Your task to perform on an android device: When is my next meeting? Image 0: 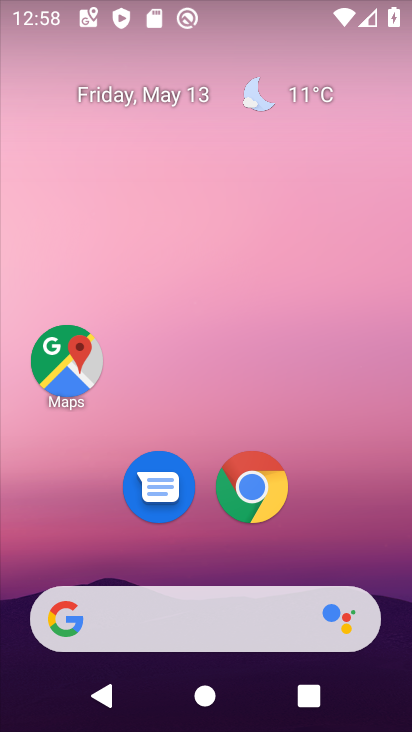
Step 0: drag from (329, 510) to (368, 106)
Your task to perform on an android device: When is my next meeting? Image 1: 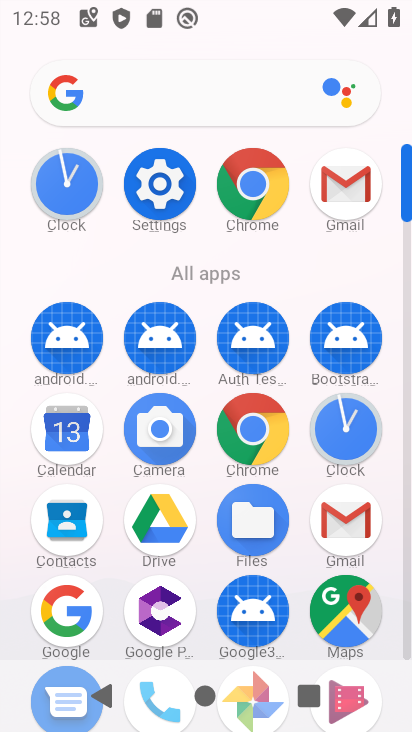
Step 1: click (105, 429)
Your task to perform on an android device: When is my next meeting? Image 2: 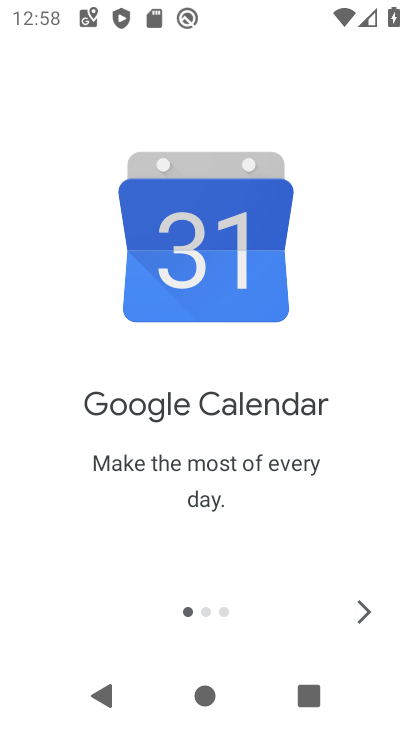
Step 2: click (365, 620)
Your task to perform on an android device: When is my next meeting? Image 3: 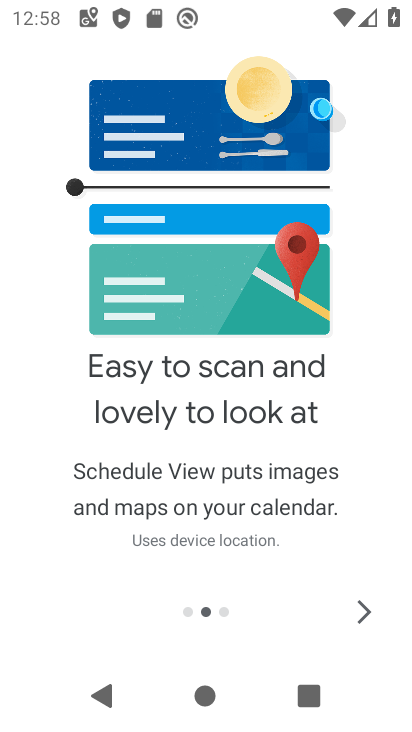
Step 3: click (365, 620)
Your task to perform on an android device: When is my next meeting? Image 4: 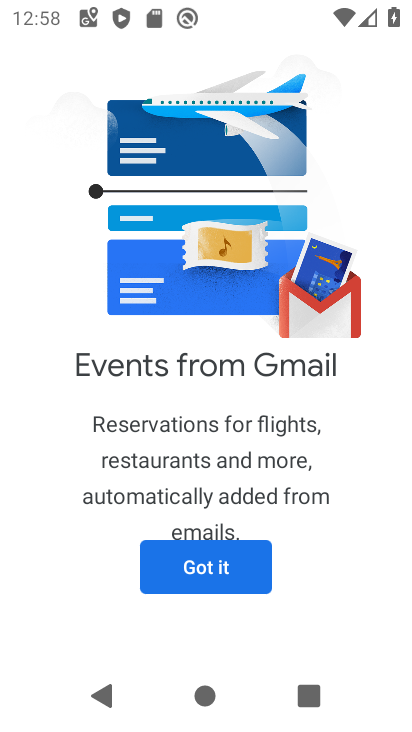
Step 4: click (267, 581)
Your task to perform on an android device: When is my next meeting? Image 5: 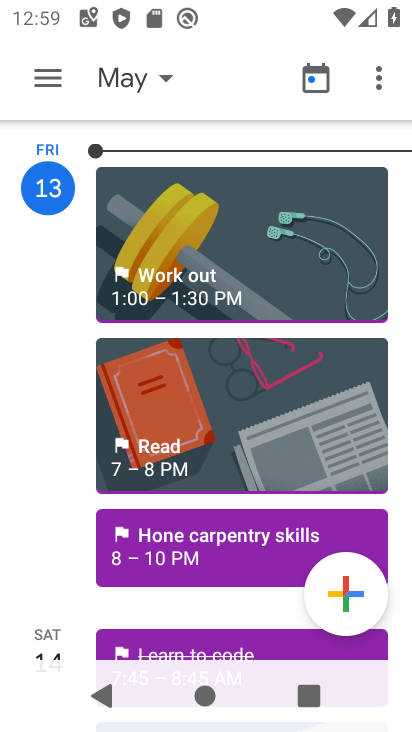
Step 5: drag from (63, 598) to (63, 399)
Your task to perform on an android device: When is my next meeting? Image 6: 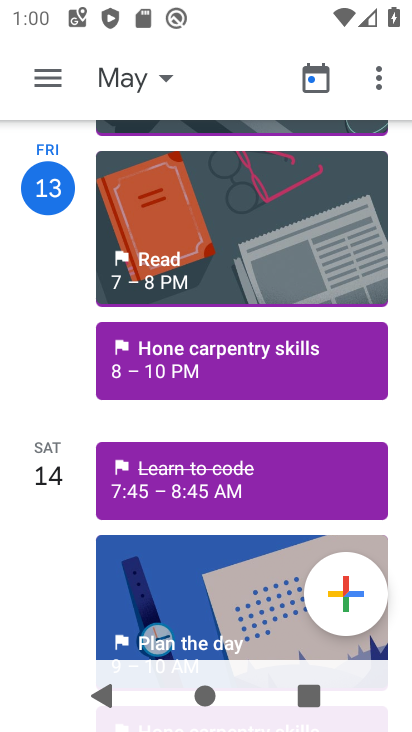
Step 6: drag from (80, 625) to (73, 413)
Your task to perform on an android device: When is my next meeting? Image 7: 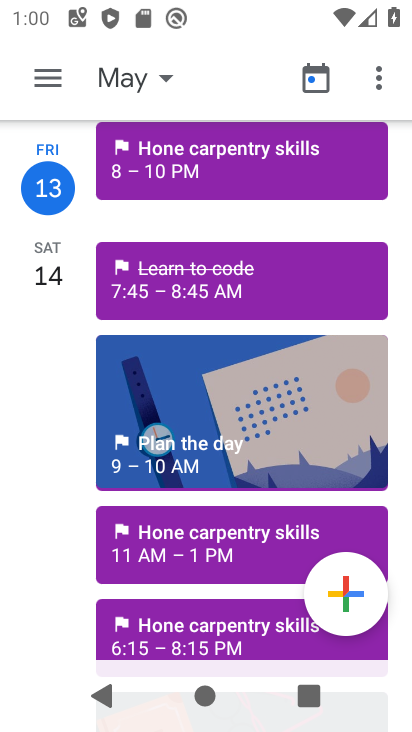
Step 7: click (164, 89)
Your task to perform on an android device: When is my next meeting? Image 8: 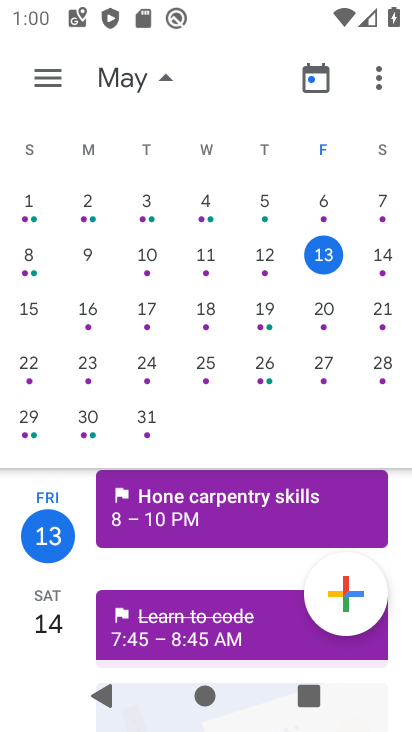
Step 8: click (382, 266)
Your task to perform on an android device: When is my next meeting? Image 9: 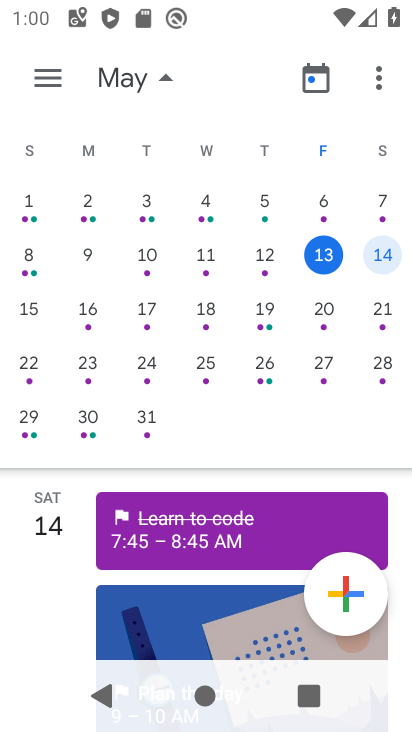
Step 9: click (26, 307)
Your task to perform on an android device: When is my next meeting? Image 10: 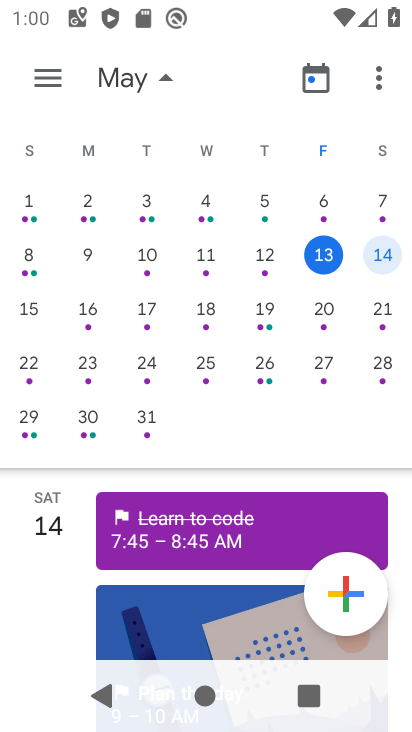
Step 10: task complete